Your task to perform on an android device: Go to sound settings Image 0: 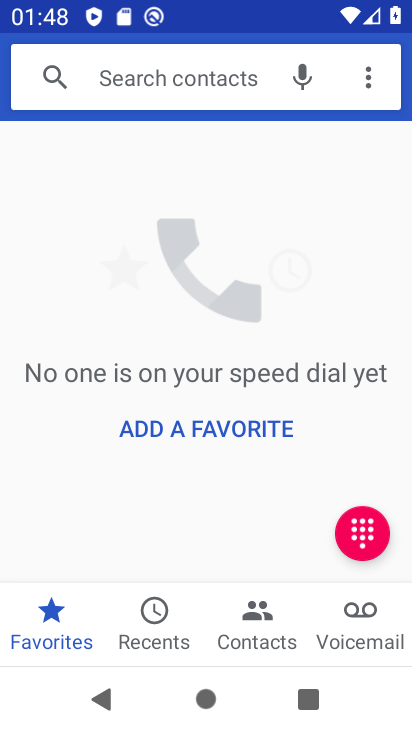
Step 0: press home button
Your task to perform on an android device: Go to sound settings Image 1: 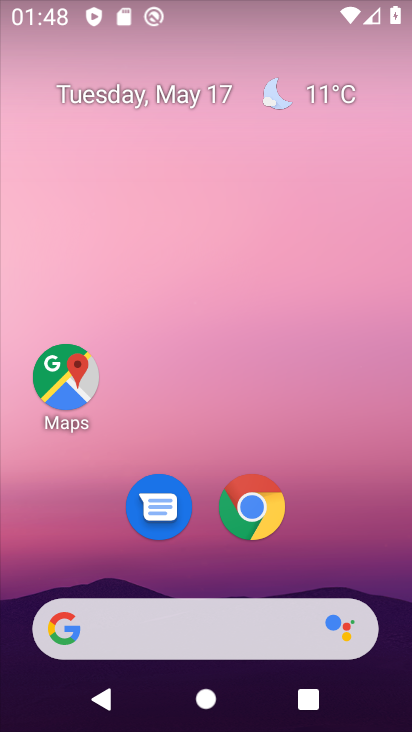
Step 1: drag from (192, 574) to (247, 79)
Your task to perform on an android device: Go to sound settings Image 2: 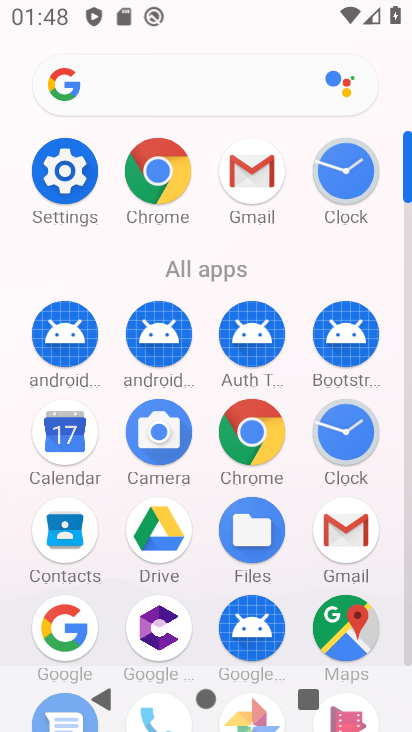
Step 2: click (49, 137)
Your task to perform on an android device: Go to sound settings Image 3: 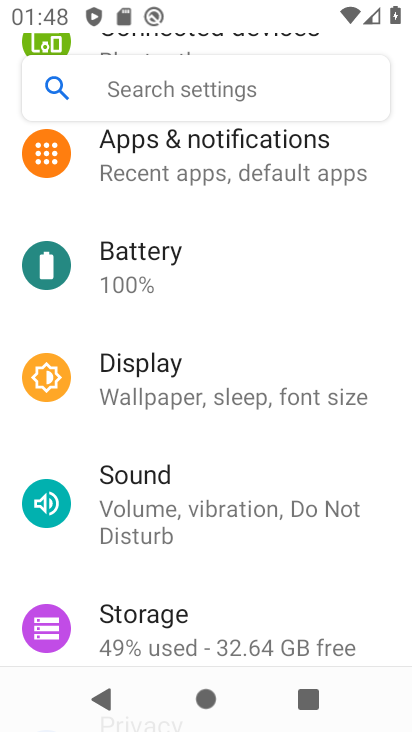
Step 3: click (145, 477)
Your task to perform on an android device: Go to sound settings Image 4: 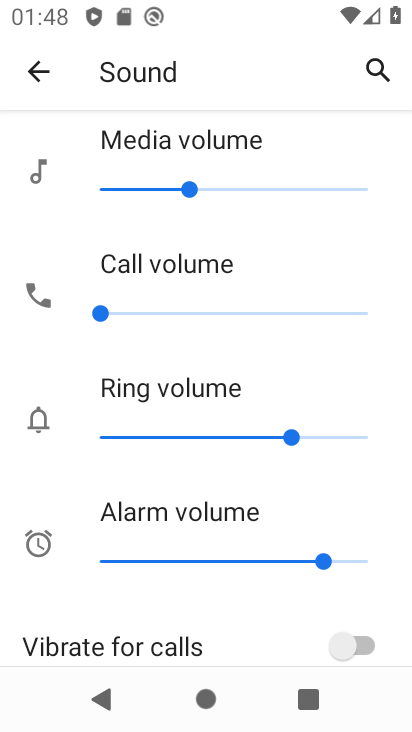
Step 4: task complete